Your task to perform on an android device: turn off notifications in google photos Image 0: 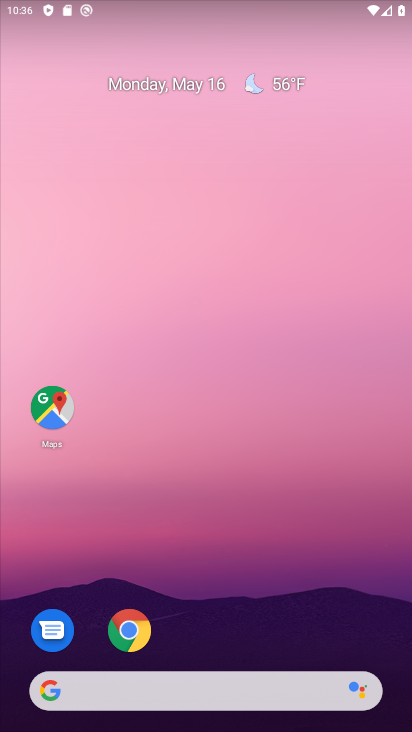
Step 0: drag from (226, 562) to (277, 242)
Your task to perform on an android device: turn off notifications in google photos Image 1: 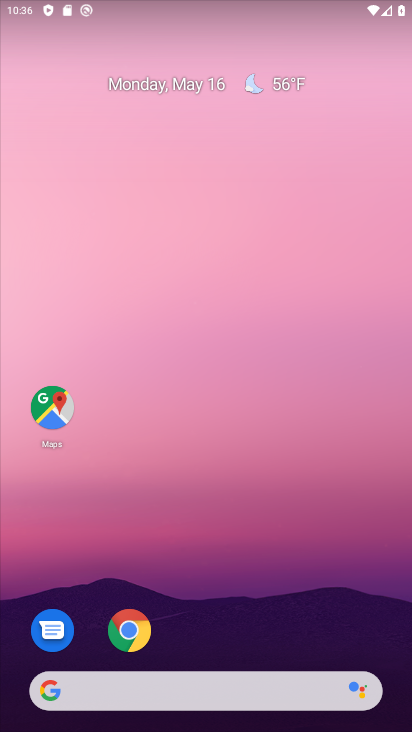
Step 1: drag from (190, 633) to (271, 185)
Your task to perform on an android device: turn off notifications in google photos Image 2: 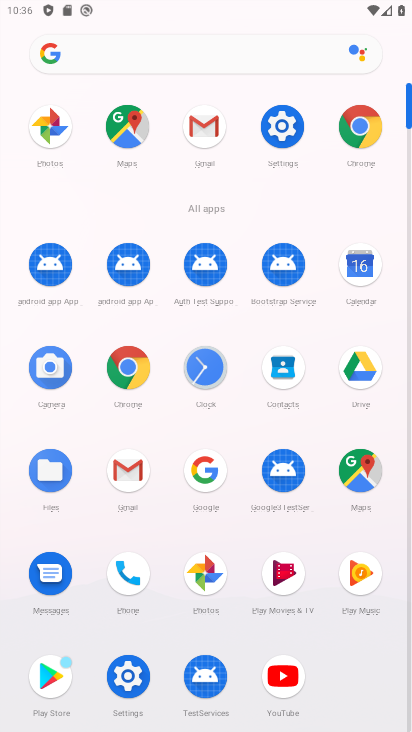
Step 2: click (201, 568)
Your task to perform on an android device: turn off notifications in google photos Image 3: 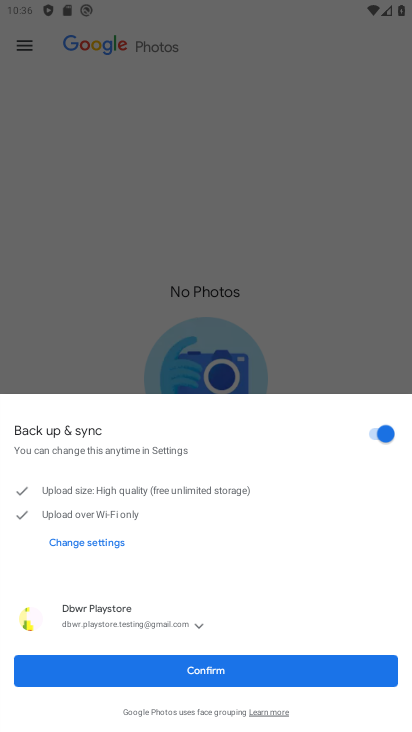
Step 3: click (224, 670)
Your task to perform on an android device: turn off notifications in google photos Image 4: 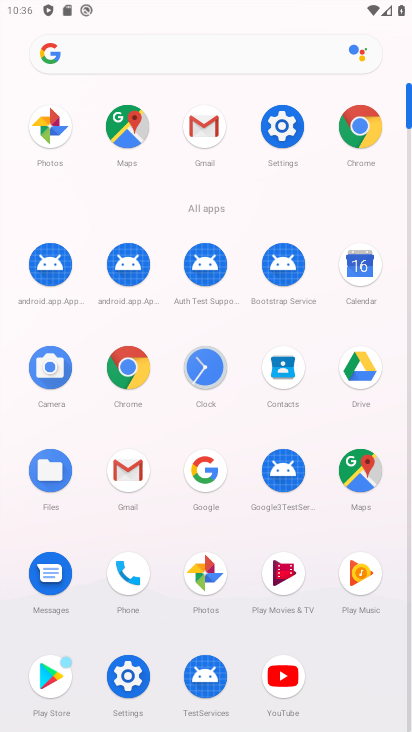
Step 4: click (207, 573)
Your task to perform on an android device: turn off notifications in google photos Image 5: 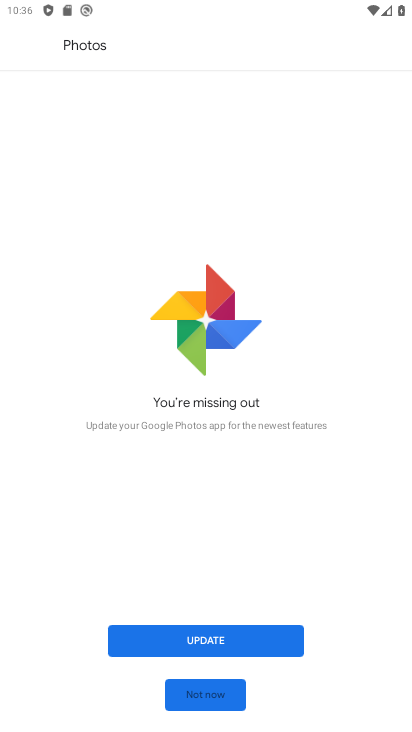
Step 5: click (248, 645)
Your task to perform on an android device: turn off notifications in google photos Image 6: 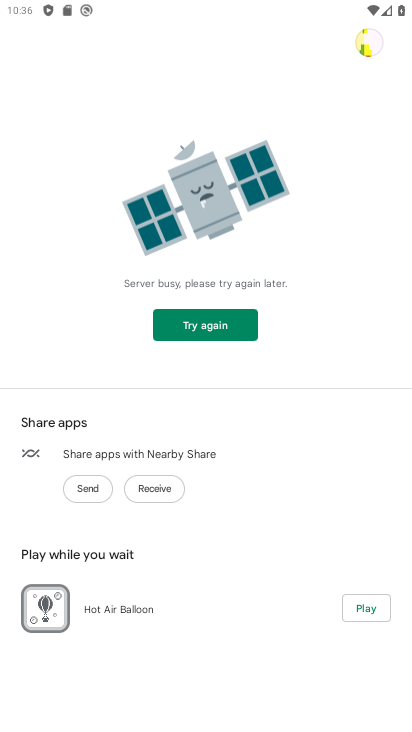
Step 6: task complete